Your task to perform on an android device: change the clock style Image 0: 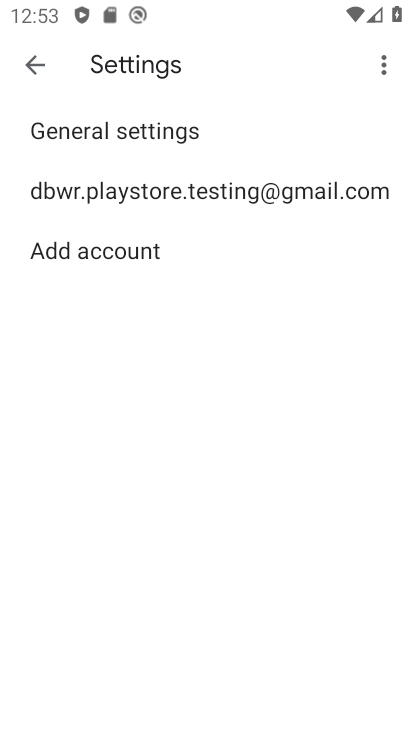
Step 0: press home button
Your task to perform on an android device: change the clock style Image 1: 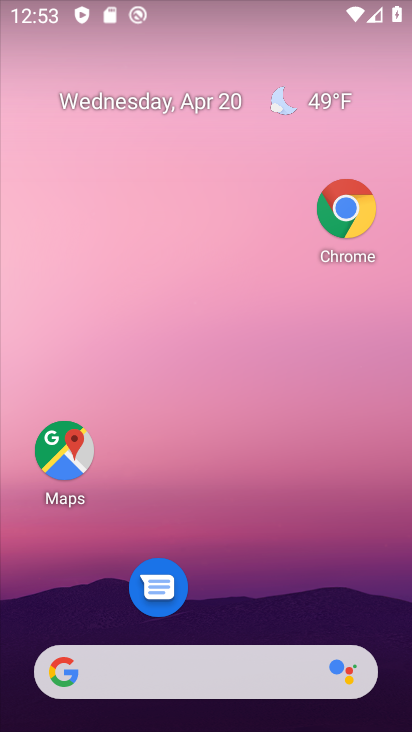
Step 1: drag from (272, 341) to (275, 19)
Your task to perform on an android device: change the clock style Image 2: 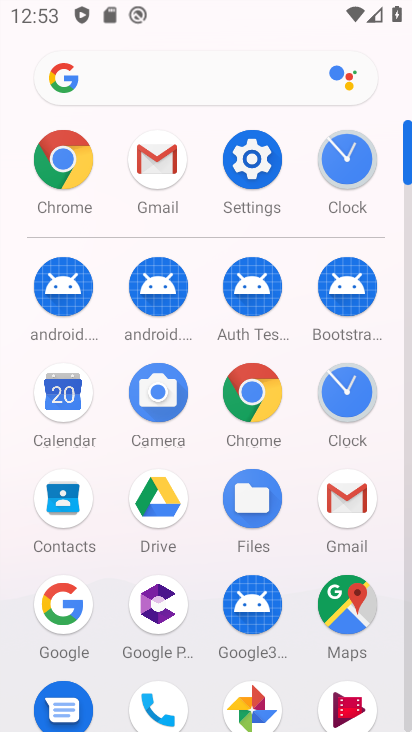
Step 2: click (351, 397)
Your task to perform on an android device: change the clock style Image 3: 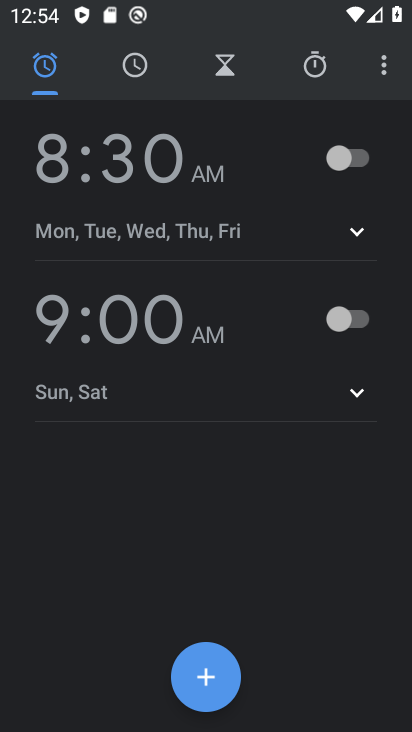
Step 3: click (382, 75)
Your task to perform on an android device: change the clock style Image 4: 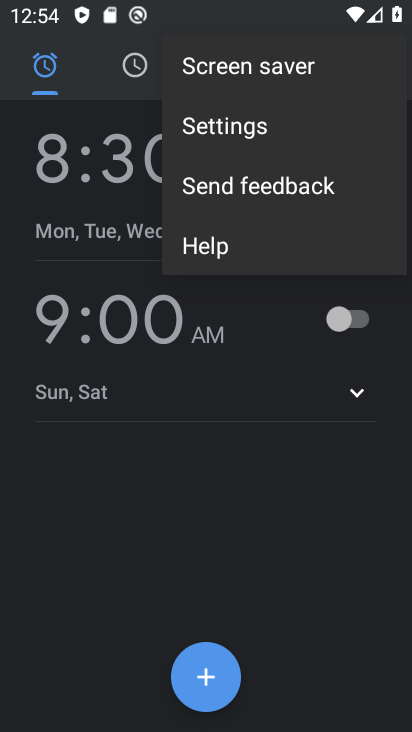
Step 4: click (224, 120)
Your task to perform on an android device: change the clock style Image 5: 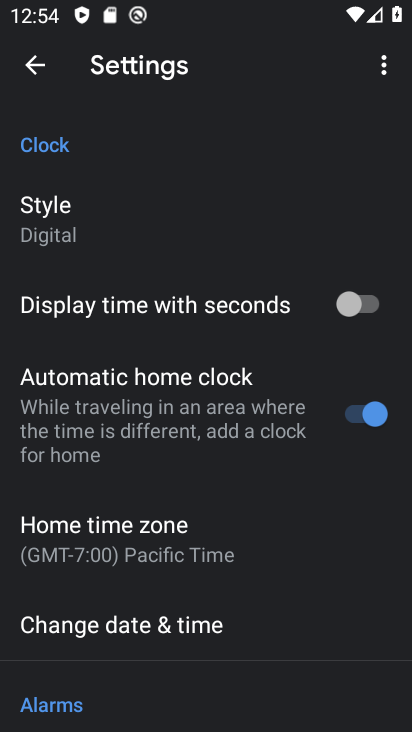
Step 5: click (63, 228)
Your task to perform on an android device: change the clock style Image 6: 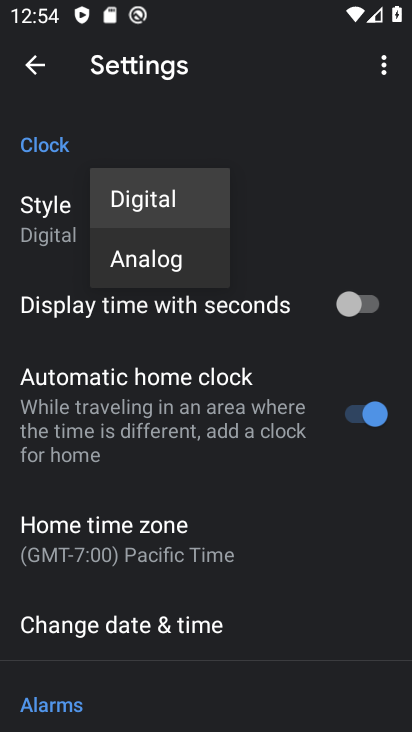
Step 6: click (179, 260)
Your task to perform on an android device: change the clock style Image 7: 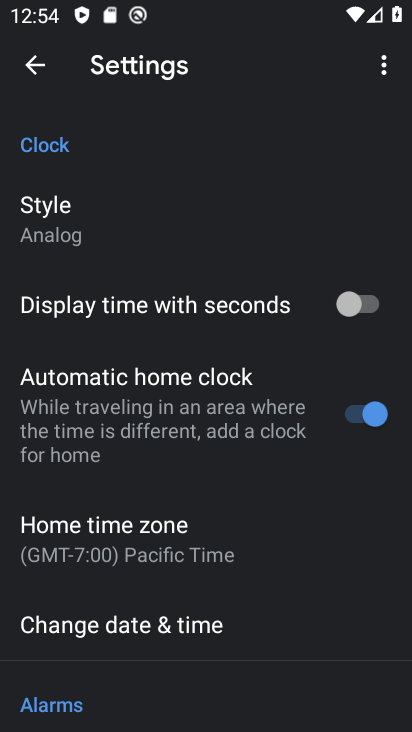
Step 7: task complete